Your task to perform on an android device: show emergency info Image 0: 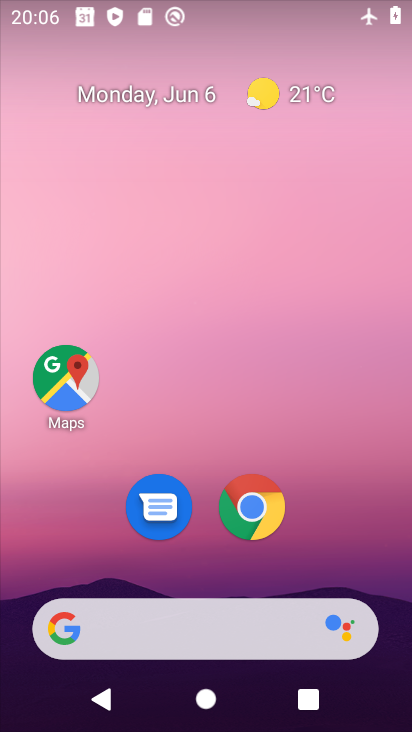
Step 0: drag from (214, 571) to (227, 142)
Your task to perform on an android device: show emergency info Image 1: 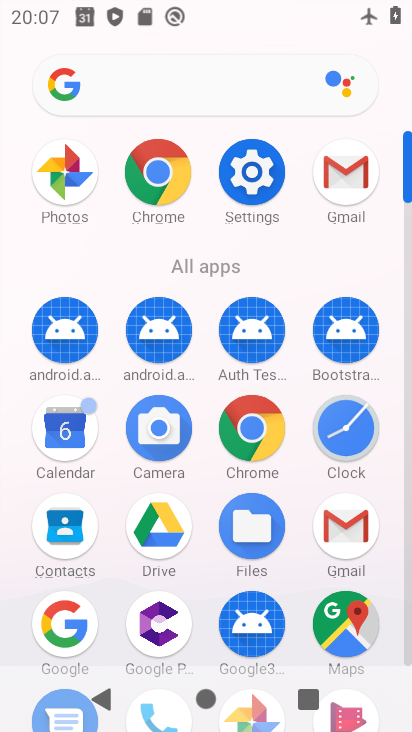
Step 1: click (250, 175)
Your task to perform on an android device: show emergency info Image 2: 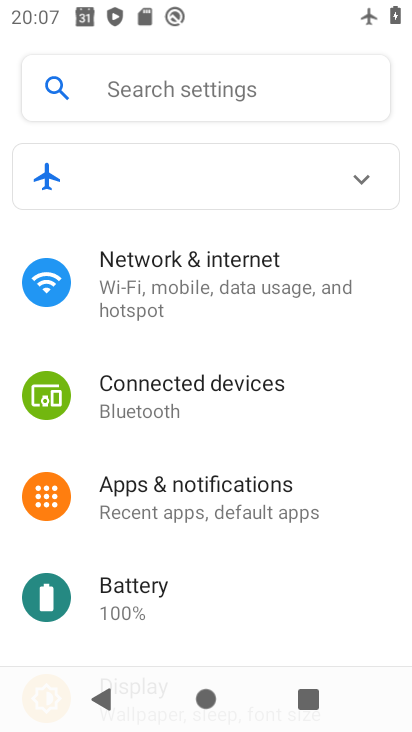
Step 2: drag from (214, 574) to (237, 230)
Your task to perform on an android device: show emergency info Image 3: 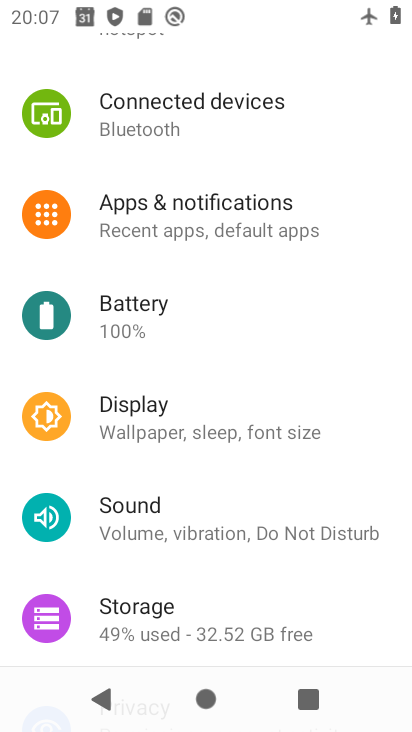
Step 3: drag from (236, 564) to (268, 263)
Your task to perform on an android device: show emergency info Image 4: 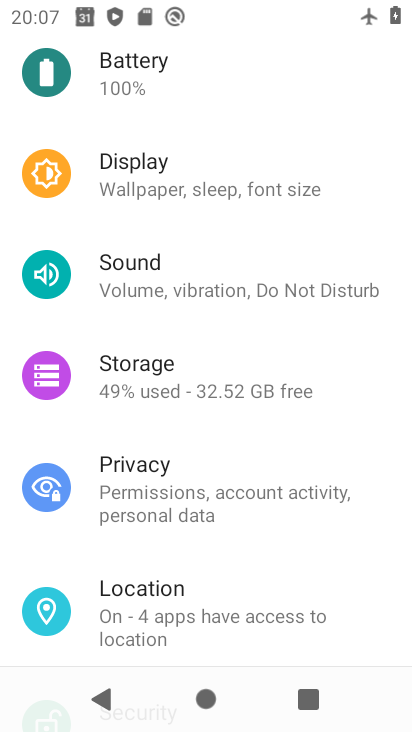
Step 4: drag from (223, 580) to (231, 138)
Your task to perform on an android device: show emergency info Image 5: 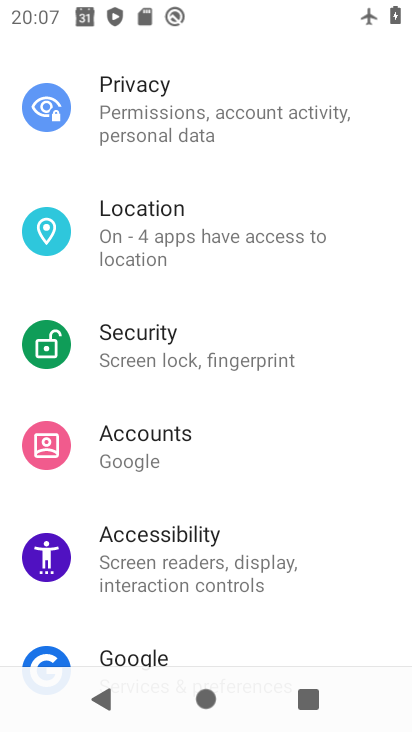
Step 5: drag from (213, 594) to (221, 185)
Your task to perform on an android device: show emergency info Image 6: 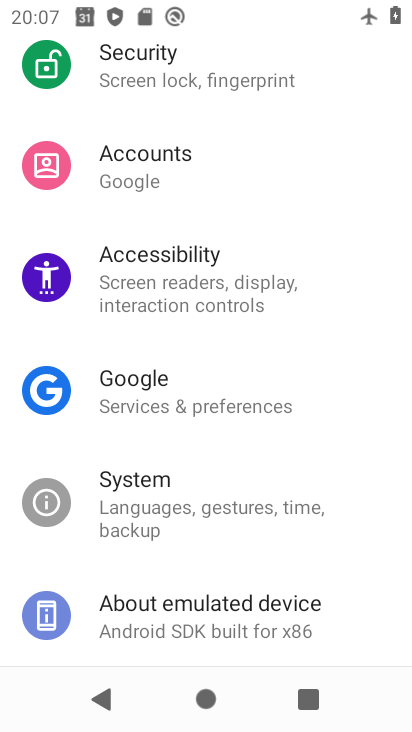
Step 6: drag from (212, 619) to (249, 273)
Your task to perform on an android device: show emergency info Image 7: 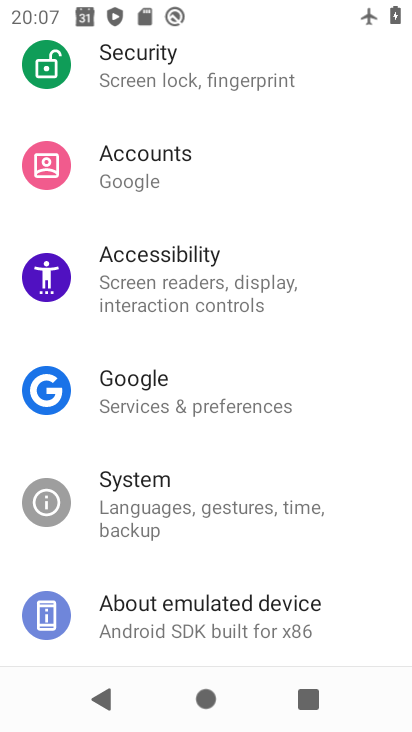
Step 7: click (179, 627)
Your task to perform on an android device: show emergency info Image 8: 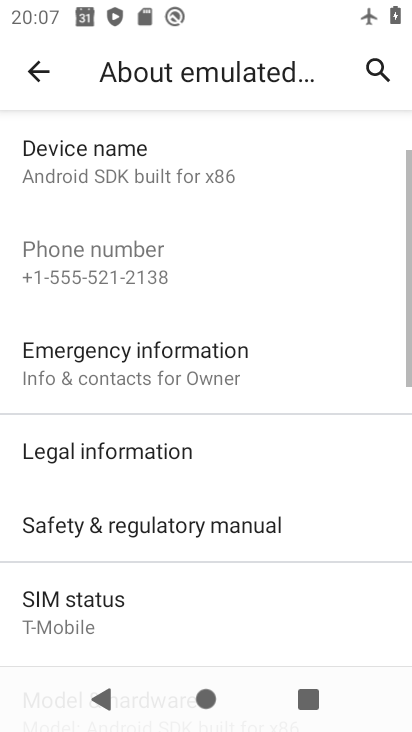
Step 8: drag from (179, 627) to (257, 287)
Your task to perform on an android device: show emergency info Image 9: 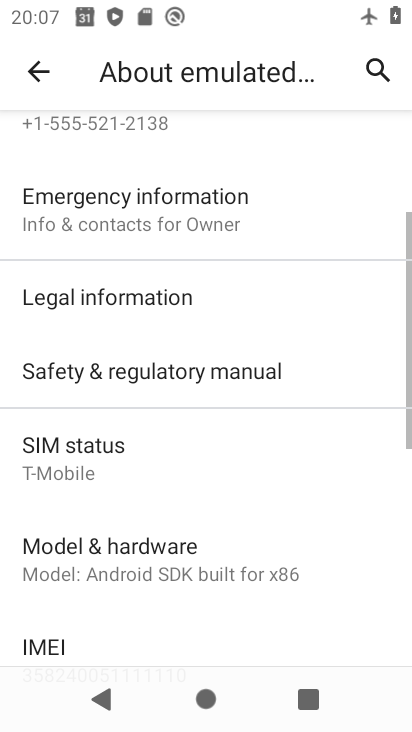
Step 9: click (149, 229)
Your task to perform on an android device: show emergency info Image 10: 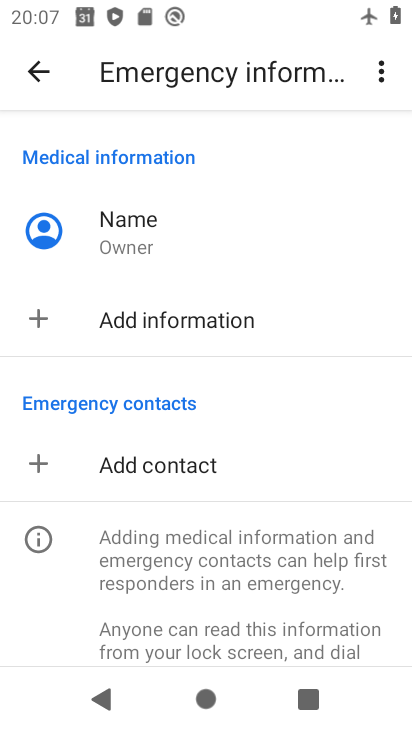
Step 10: task complete